Your task to perform on an android device: Open eBay Image 0: 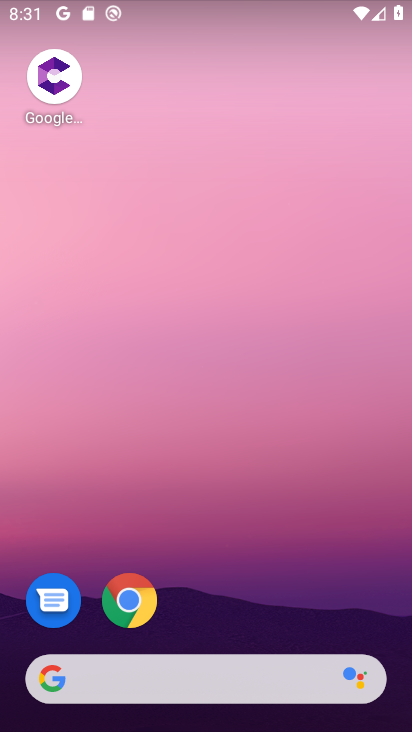
Step 0: drag from (315, 538) to (203, 114)
Your task to perform on an android device: Open eBay Image 1: 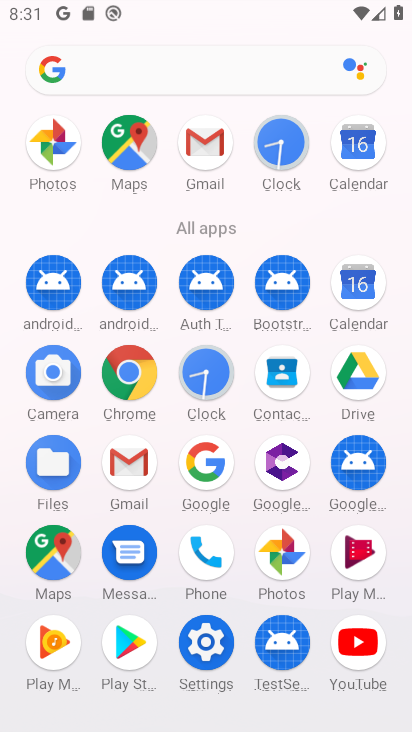
Step 1: click (126, 384)
Your task to perform on an android device: Open eBay Image 2: 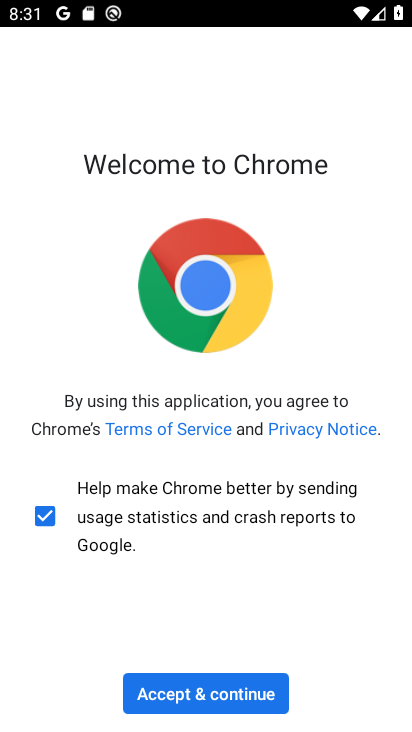
Step 2: click (215, 682)
Your task to perform on an android device: Open eBay Image 3: 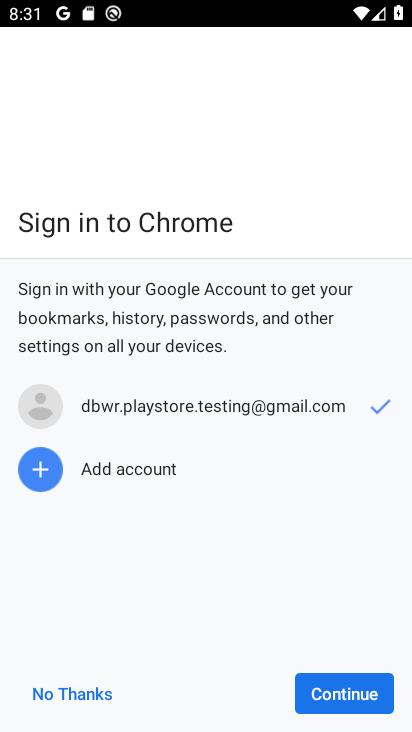
Step 3: click (215, 682)
Your task to perform on an android device: Open eBay Image 4: 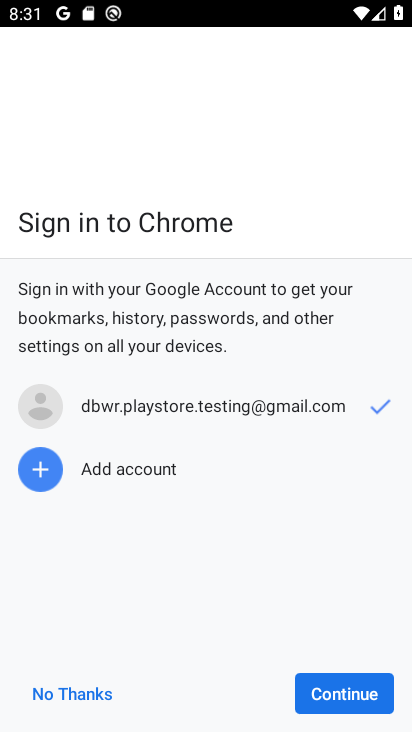
Step 4: click (336, 681)
Your task to perform on an android device: Open eBay Image 5: 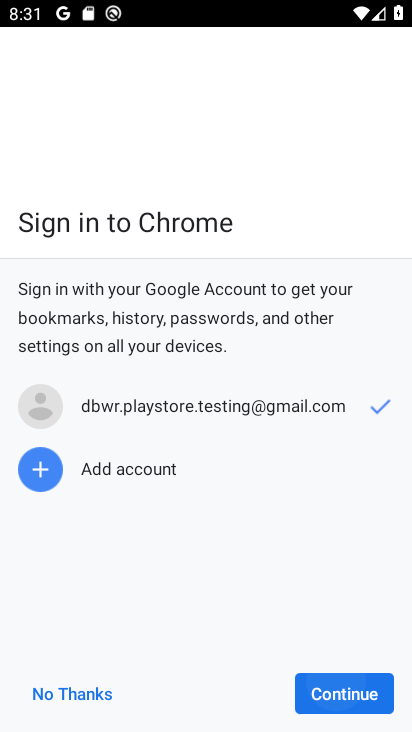
Step 5: click (336, 681)
Your task to perform on an android device: Open eBay Image 6: 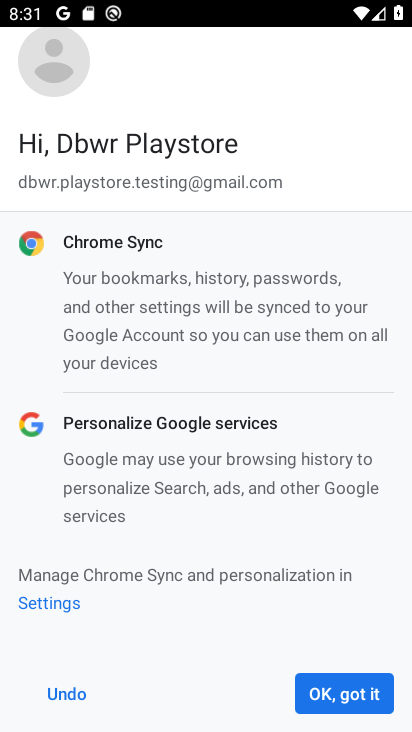
Step 6: click (344, 689)
Your task to perform on an android device: Open eBay Image 7: 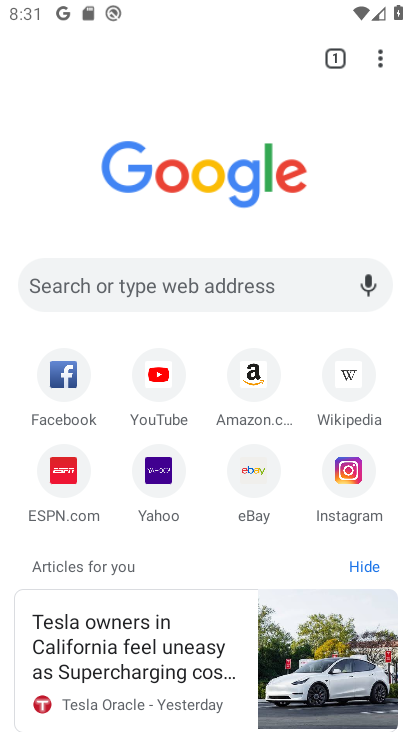
Step 7: click (255, 470)
Your task to perform on an android device: Open eBay Image 8: 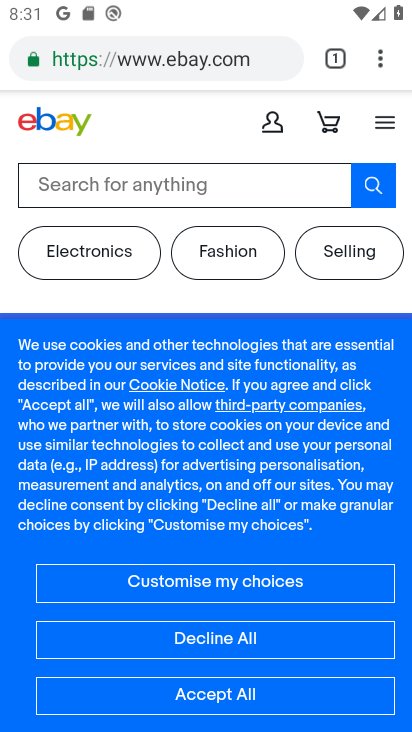
Step 8: task complete